Your task to perform on an android device: change the clock display to digital Image 0: 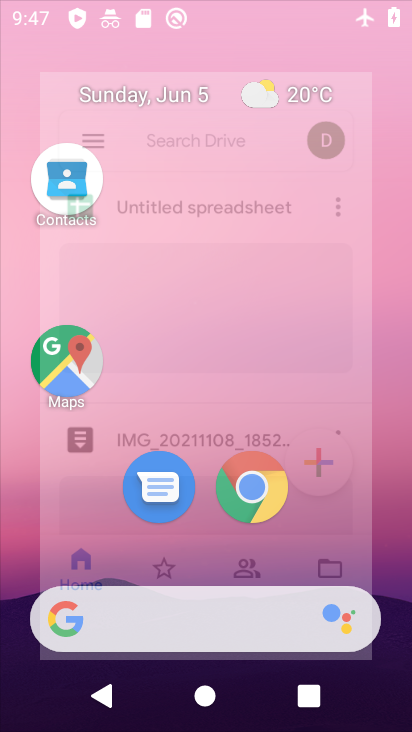
Step 0: drag from (233, 569) to (341, 16)
Your task to perform on an android device: change the clock display to digital Image 1: 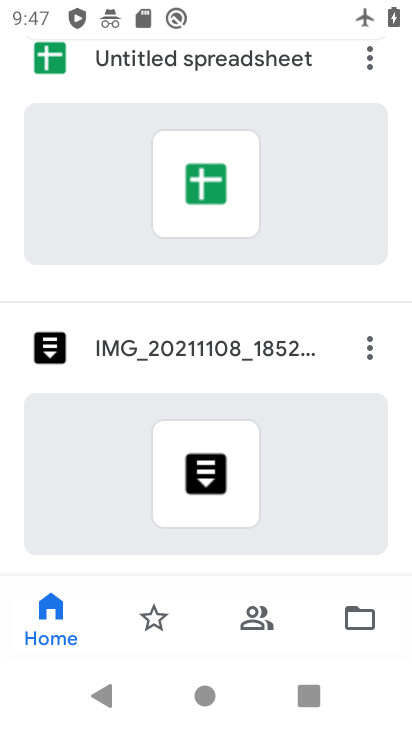
Step 1: press home button
Your task to perform on an android device: change the clock display to digital Image 2: 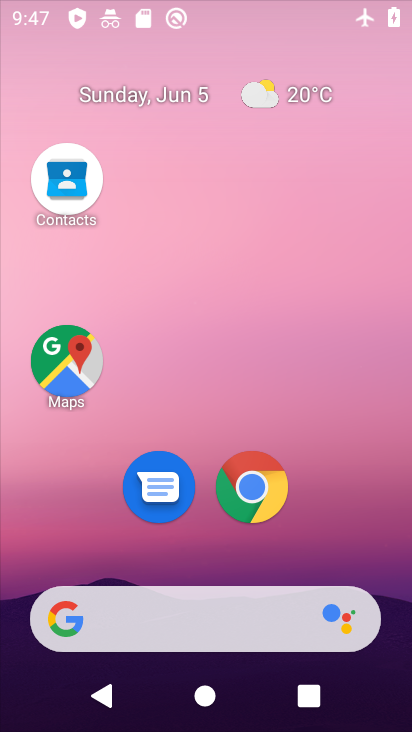
Step 2: drag from (269, 598) to (154, 93)
Your task to perform on an android device: change the clock display to digital Image 3: 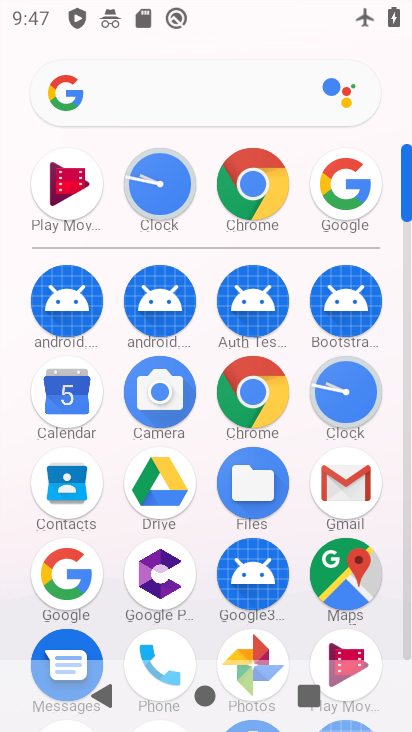
Step 3: click (346, 400)
Your task to perform on an android device: change the clock display to digital Image 4: 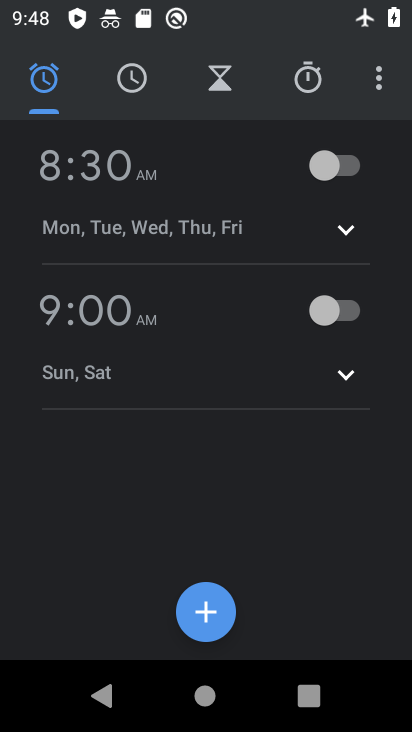
Step 4: click (385, 76)
Your task to perform on an android device: change the clock display to digital Image 5: 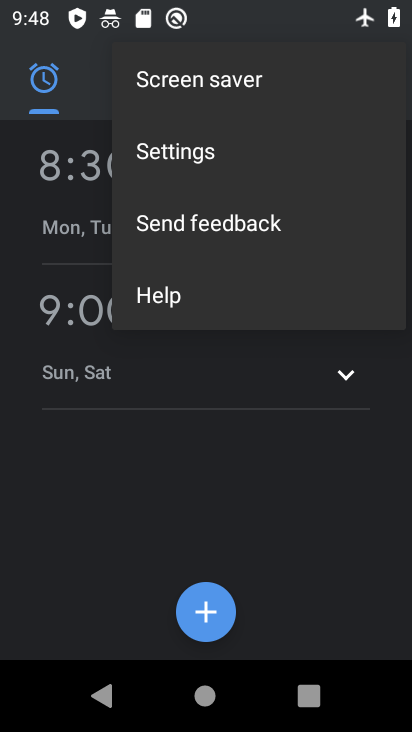
Step 5: click (199, 159)
Your task to perform on an android device: change the clock display to digital Image 6: 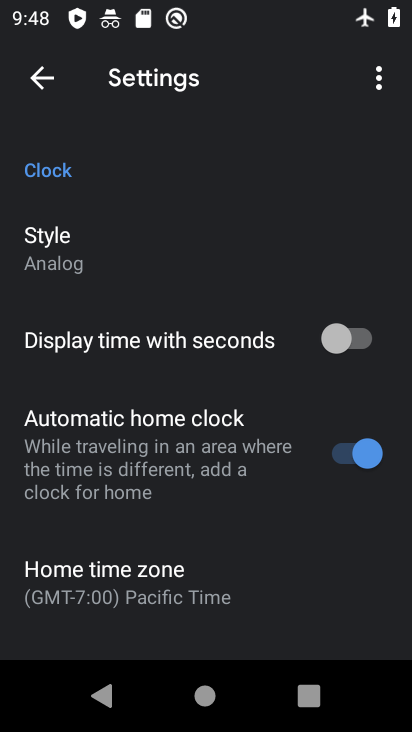
Step 6: click (79, 241)
Your task to perform on an android device: change the clock display to digital Image 7: 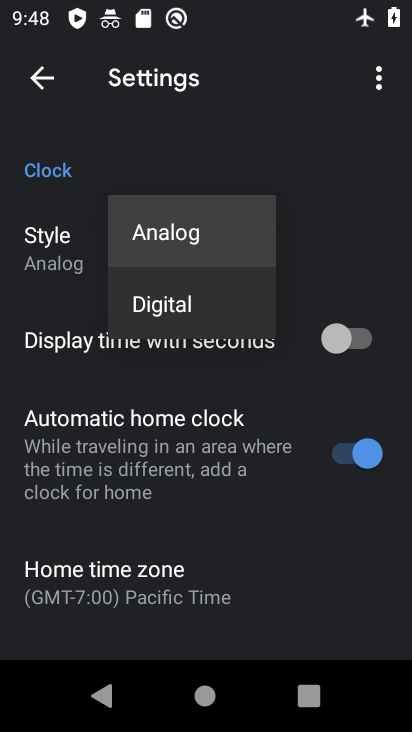
Step 7: click (171, 309)
Your task to perform on an android device: change the clock display to digital Image 8: 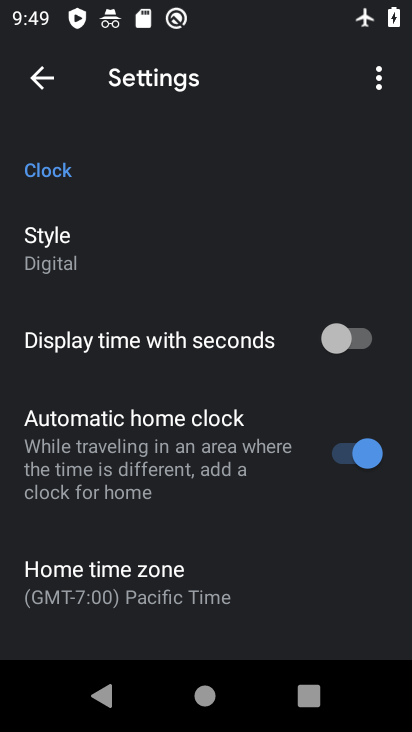
Step 8: task complete